Your task to perform on an android device: What's the weather like in Johannesburg? Image 0: 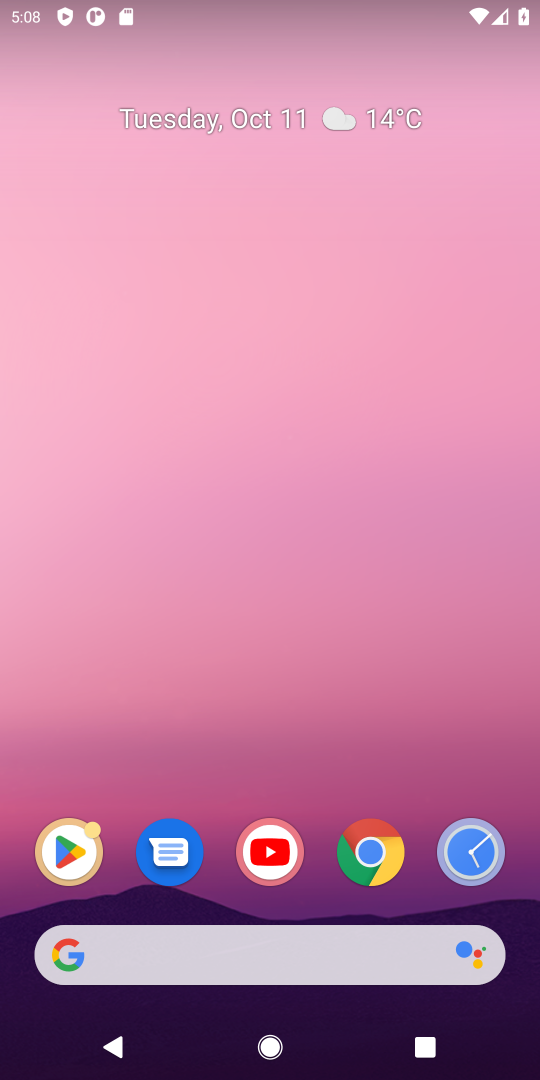
Step 0: click (359, 845)
Your task to perform on an android device: What's the weather like in Johannesburg? Image 1: 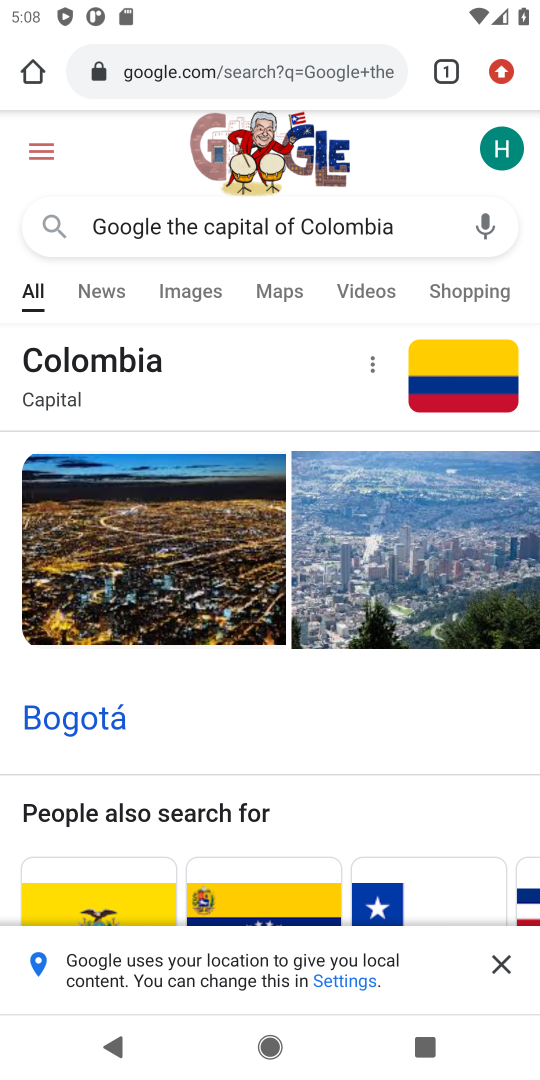
Step 1: click (241, 84)
Your task to perform on an android device: What's the weather like in Johannesburg? Image 2: 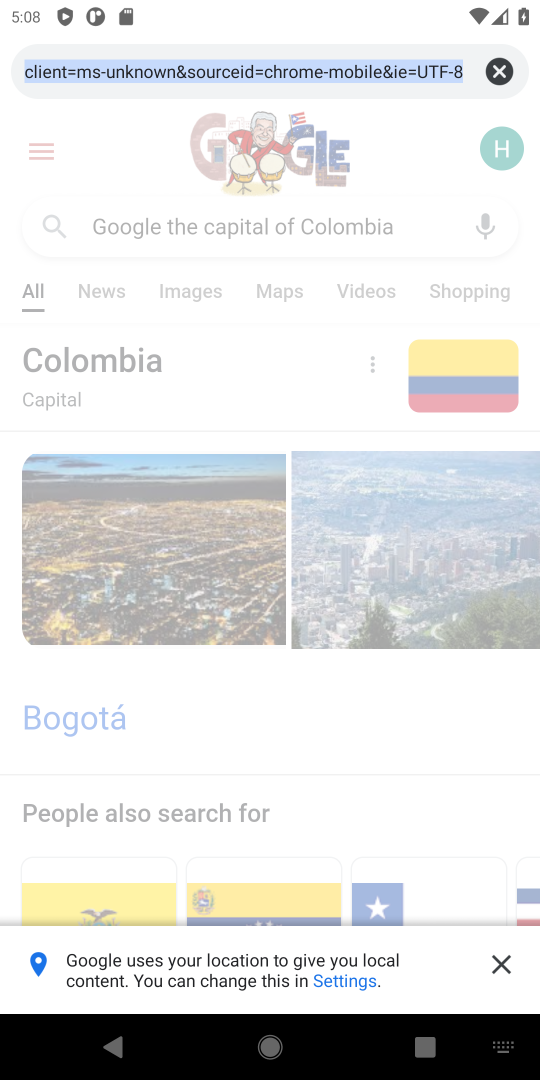
Step 2: type "weather like in Johannesburg"
Your task to perform on an android device: What's the weather like in Johannesburg? Image 3: 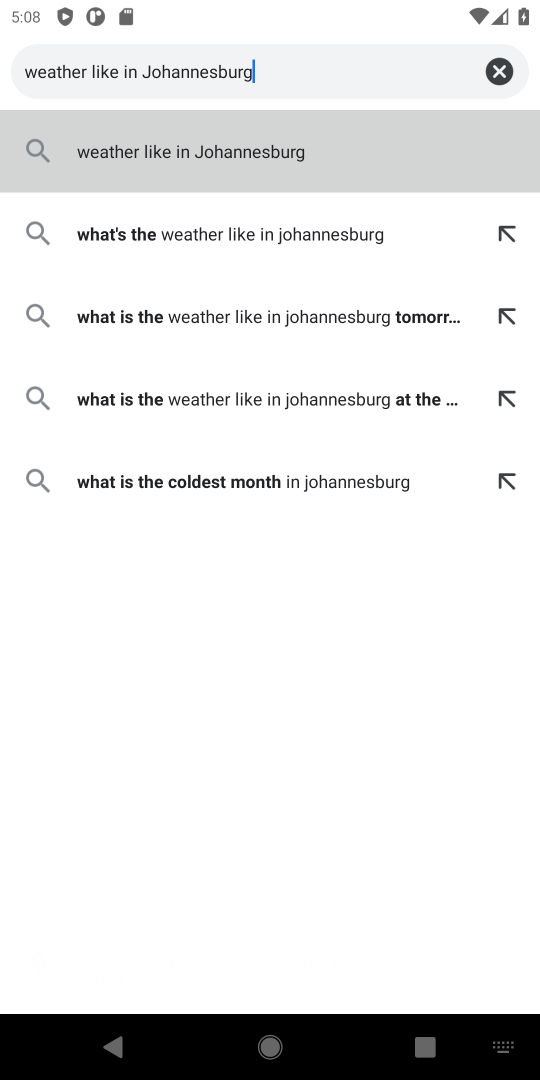
Step 3: click (372, 160)
Your task to perform on an android device: What's the weather like in Johannesburg? Image 4: 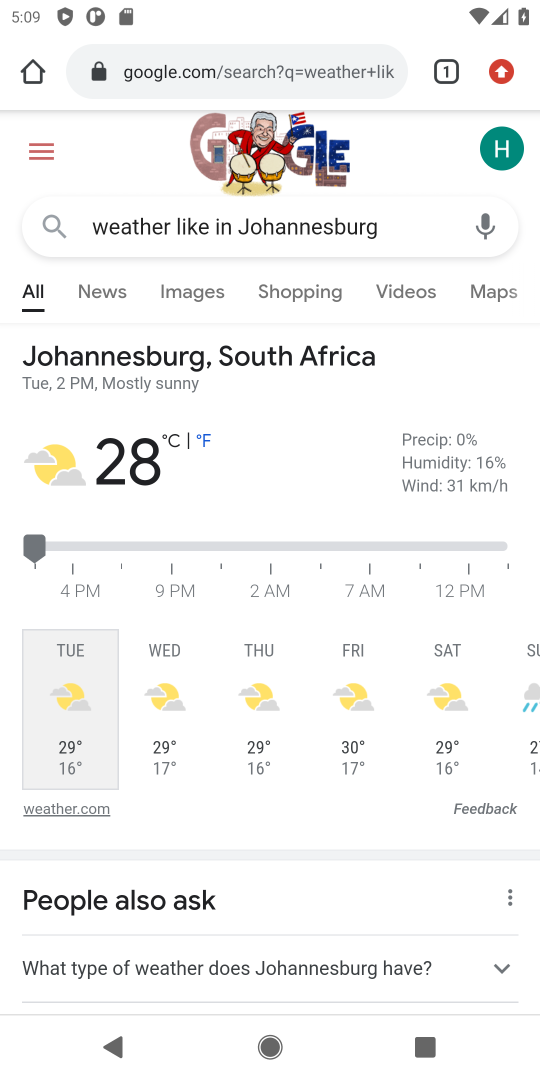
Step 4: task complete